Your task to perform on an android device: turn off notifications settings in the gmail app Image 0: 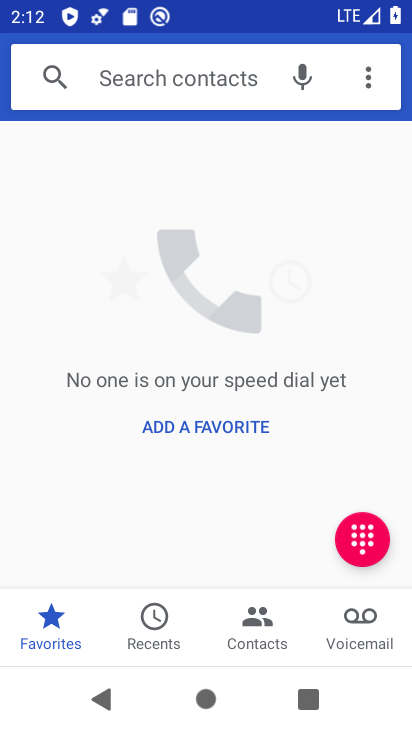
Step 0: press back button
Your task to perform on an android device: turn off notifications settings in the gmail app Image 1: 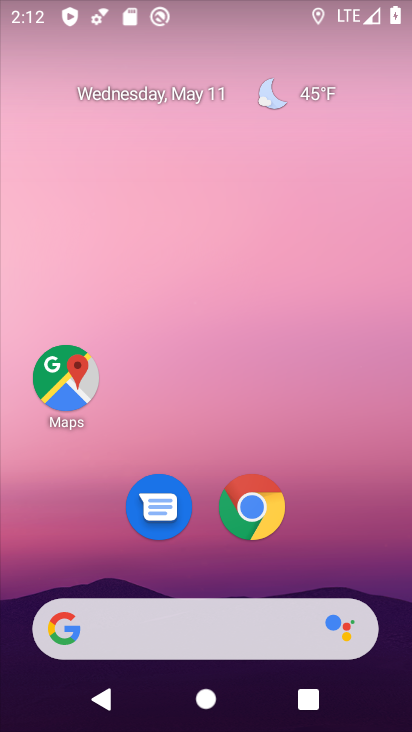
Step 1: drag from (332, 545) to (254, 62)
Your task to perform on an android device: turn off notifications settings in the gmail app Image 2: 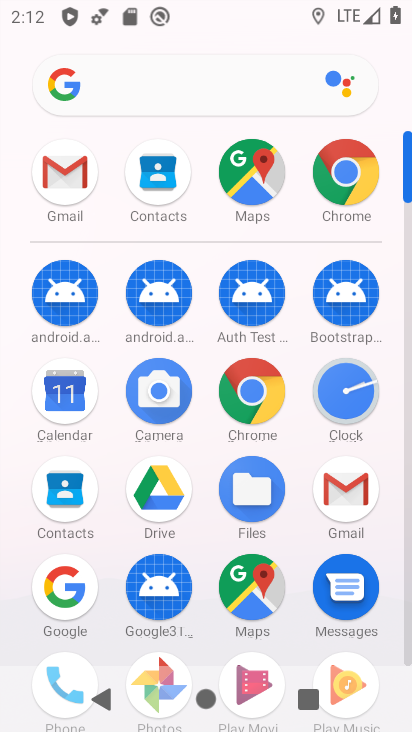
Step 2: click (64, 168)
Your task to perform on an android device: turn off notifications settings in the gmail app Image 3: 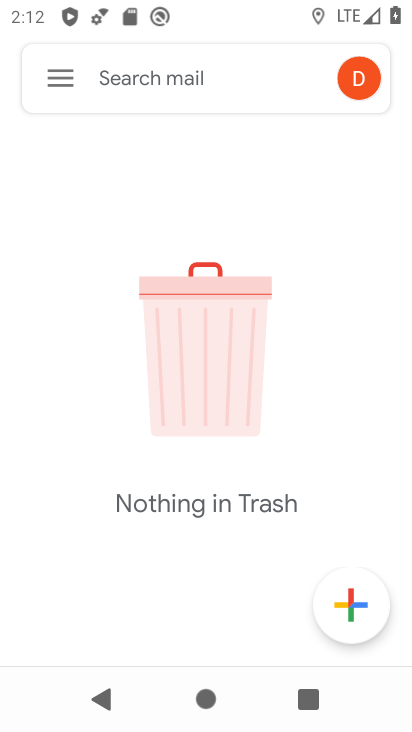
Step 3: click (49, 72)
Your task to perform on an android device: turn off notifications settings in the gmail app Image 4: 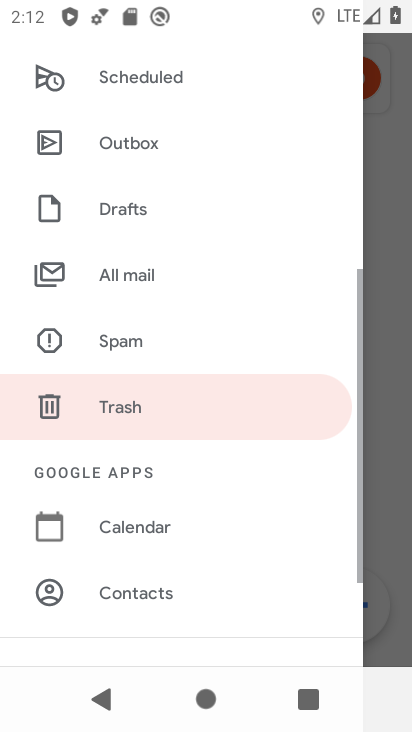
Step 4: drag from (185, 550) to (204, 128)
Your task to perform on an android device: turn off notifications settings in the gmail app Image 5: 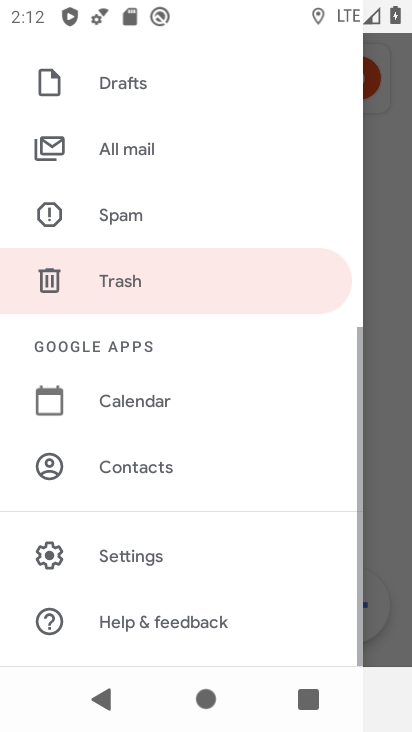
Step 5: click (129, 561)
Your task to perform on an android device: turn off notifications settings in the gmail app Image 6: 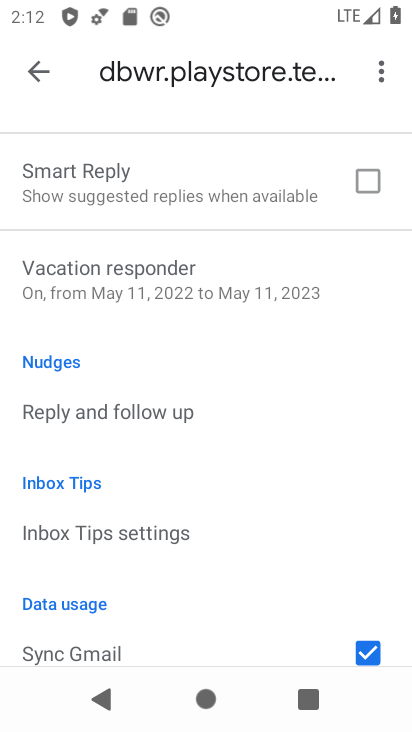
Step 6: drag from (186, 578) to (167, 226)
Your task to perform on an android device: turn off notifications settings in the gmail app Image 7: 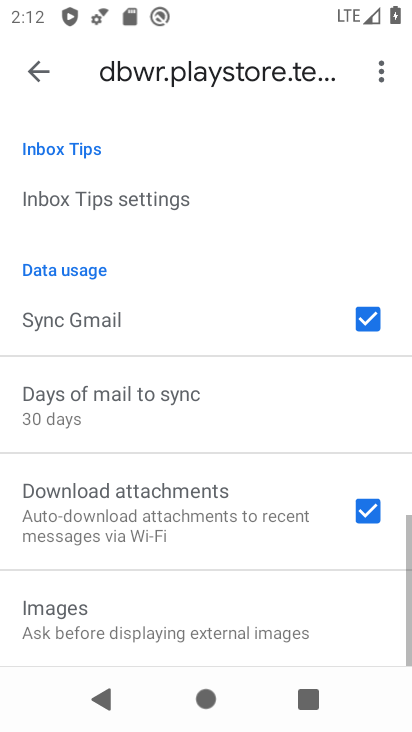
Step 7: drag from (174, 577) to (168, 155)
Your task to perform on an android device: turn off notifications settings in the gmail app Image 8: 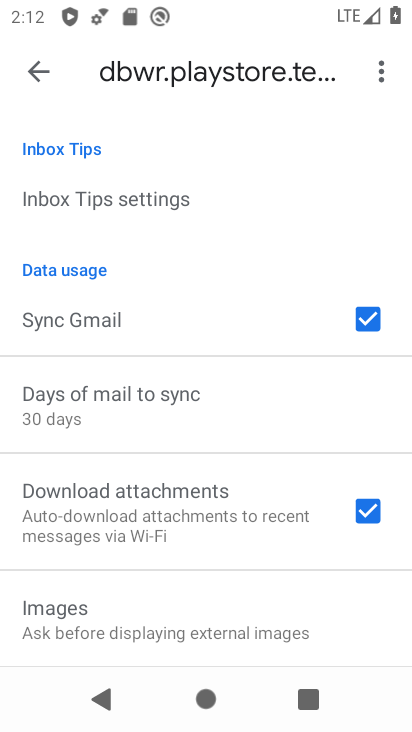
Step 8: drag from (192, 298) to (197, 580)
Your task to perform on an android device: turn off notifications settings in the gmail app Image 9: 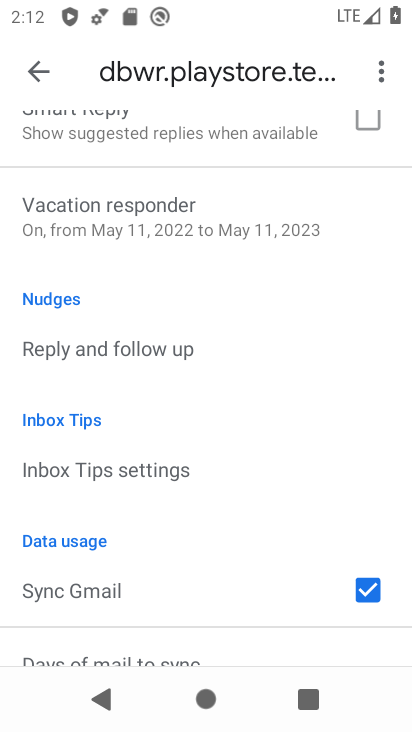
Step 9: drag from (268, 272) to (282, 605)
Your task to perform on an android device: turn off notifications settings in the gmail app Image 10: 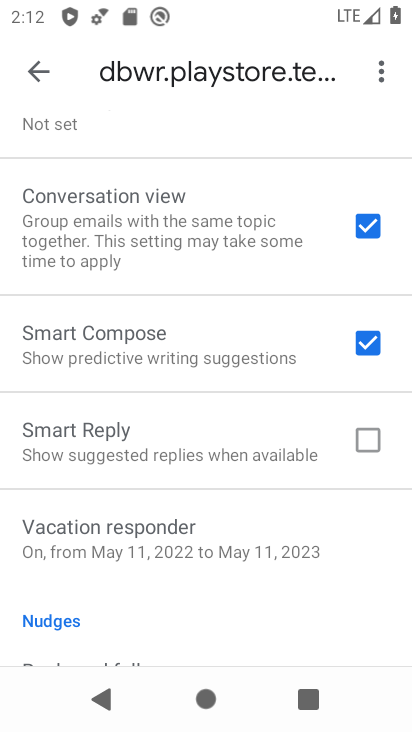
Step 10: drag from (215, 216) to (209, 618)
Your task to perform on an android device: turn off notifications settings in the gmail app Image 11: 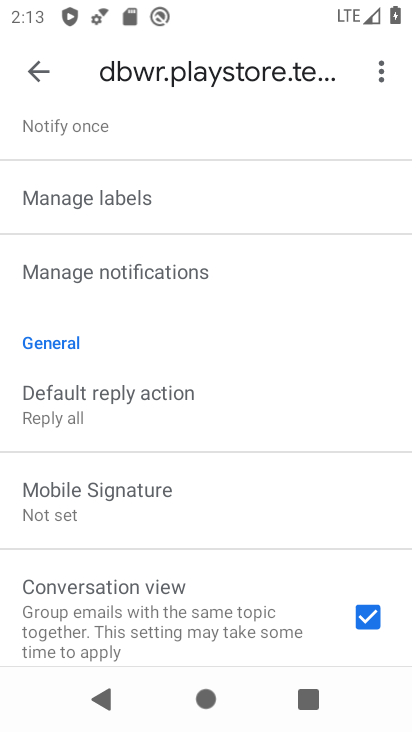
Step 11: click (111, 275)
Your task to perform on an android device: turn off notifications settings in the gmail app Image 12: 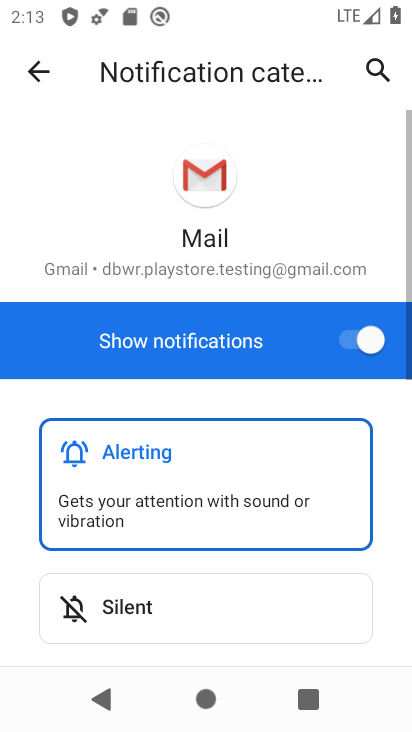
Step 12: click (348, 347)
Your task to perform on an android device: turn off notifications settings in the gmail app Image 13: 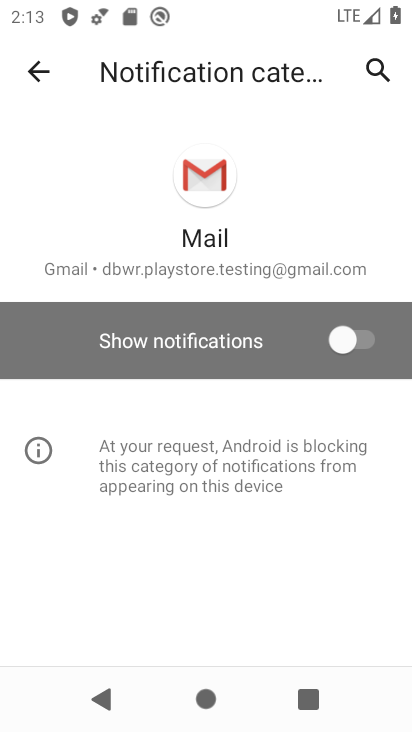
Step 13: task complete